Your task to perform on an android device: toggle pop-ups in chrome Image 0: 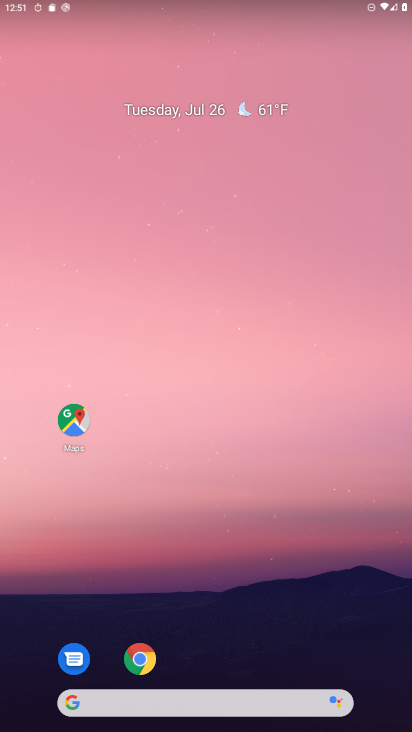
Step 0: click (155, 663)
Your task to perform on an android device: toggle pop-ups in chrome Image 1: 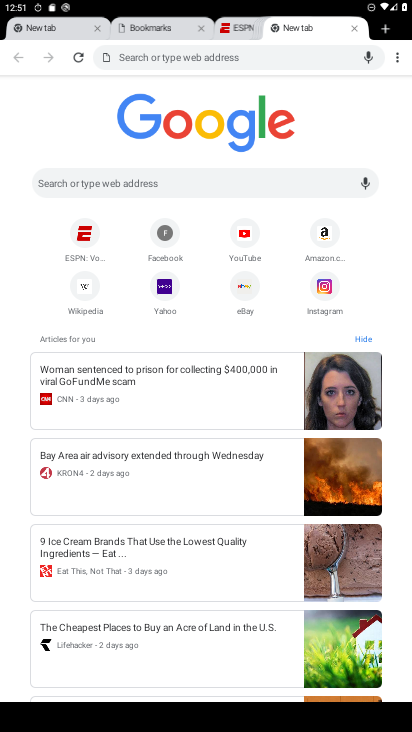
Step 1: click (392, 54)
Your task to perform on an android device: toggle pop-ups in chrome Image 2: 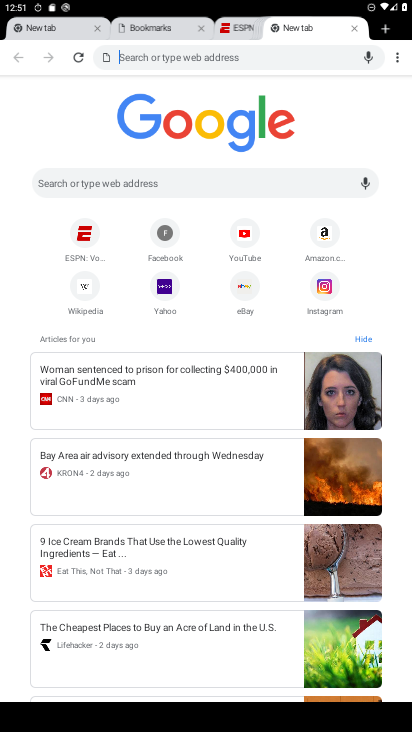
Step 2: click (395, 54)
Your task to perform on an android device: toggle pop-ups in chrome Image 3: 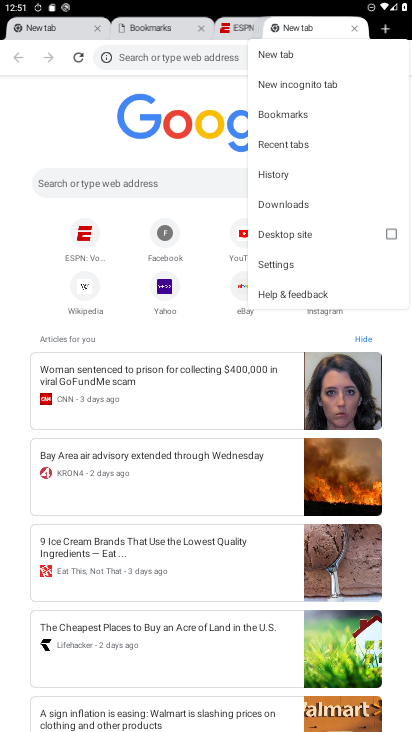
Step 3: click (278, 267)
Your task to perform on an android device: toggle pop-ups in chrome Image 4: 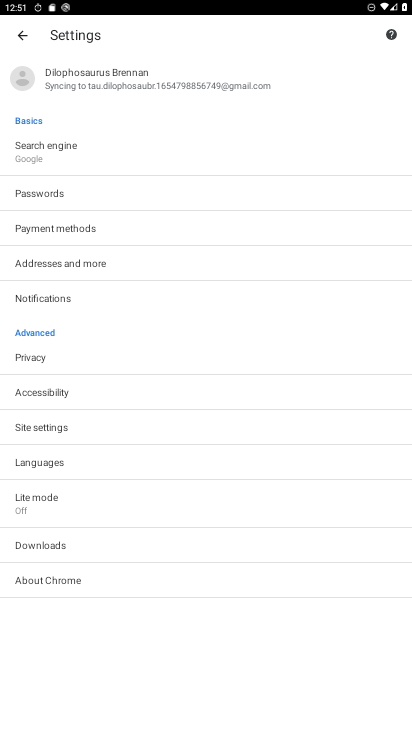
Step 4: click (26, 430)
Your task to perform on an android device: toggle pop-ups in chrome Image 5: 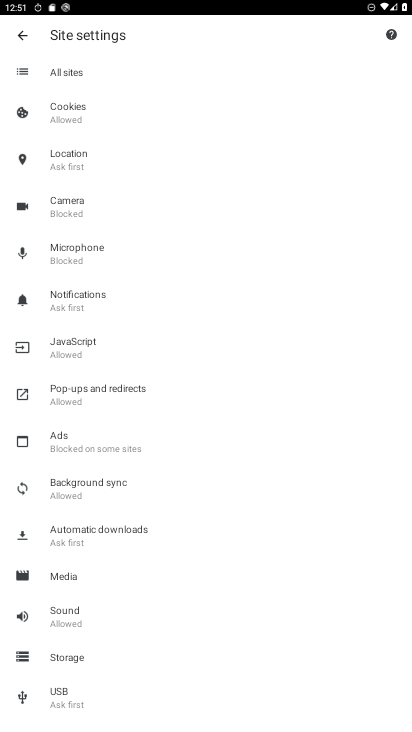
Step 5: click (92, 394)
Your task to perform on an android device: toggle pop-ups in chrome Image 6: 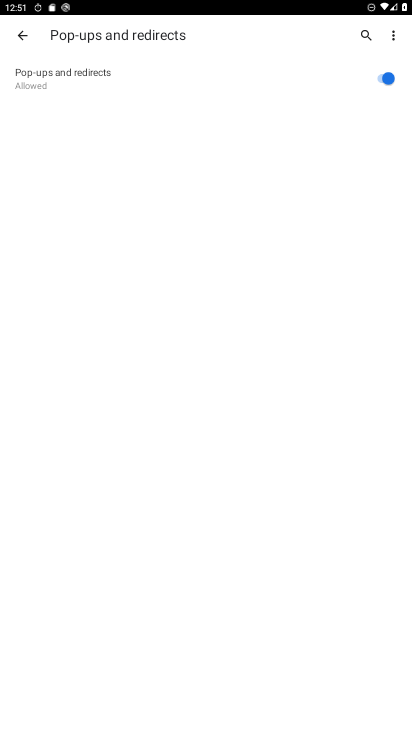
Step 6: task complete